Your task to perform on an android device: check google app version Image 0: 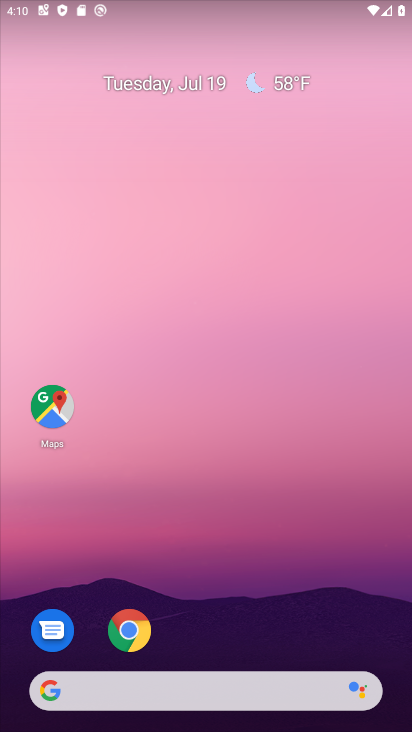
Step 0: drag from (199, 648) to (281, 199)
Your task to perform on an android device: check google app version Image 1: 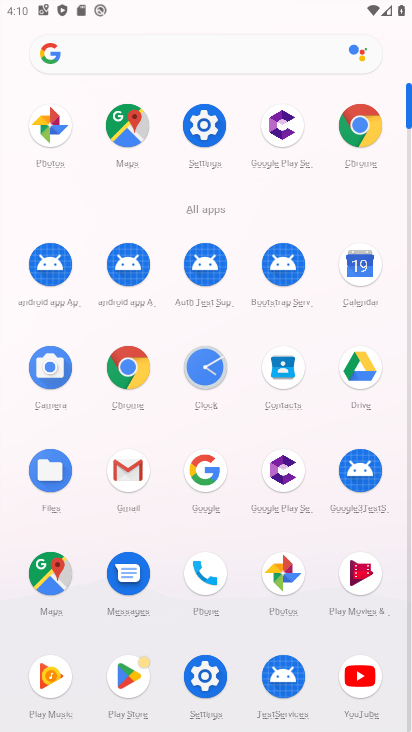
Step 1: click (204, 682)
Your task to perform on an android device: check google app version Image 2: 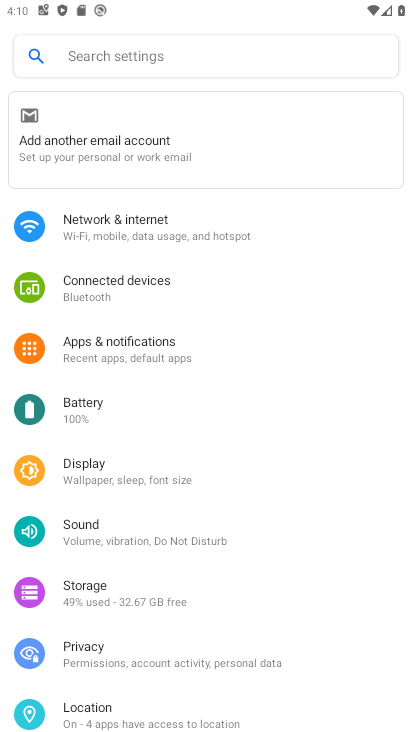
Step 2: click (170, 353)
Your task to perform on an android device: check google app version Image 3: 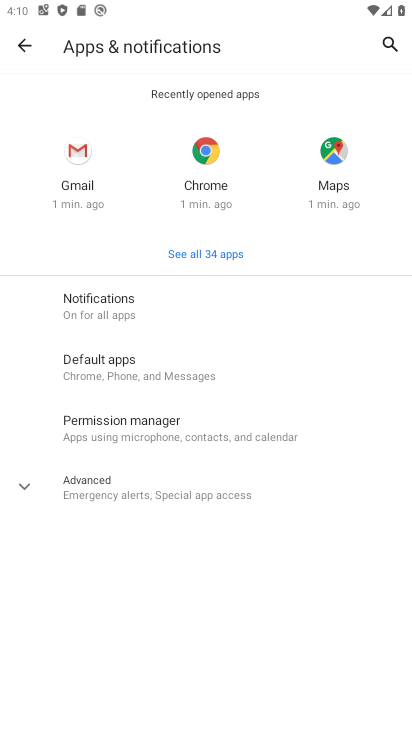
Step 3: click (227, 259)
Your task to perform on an android device: check google app version Image 4: 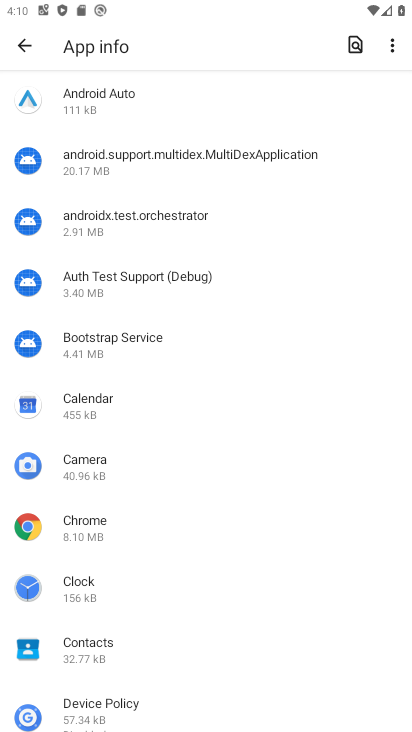
Step 4: drag from (117, 625) to (261, 201)
Your task to perform on an android device: check google app version Image 5: 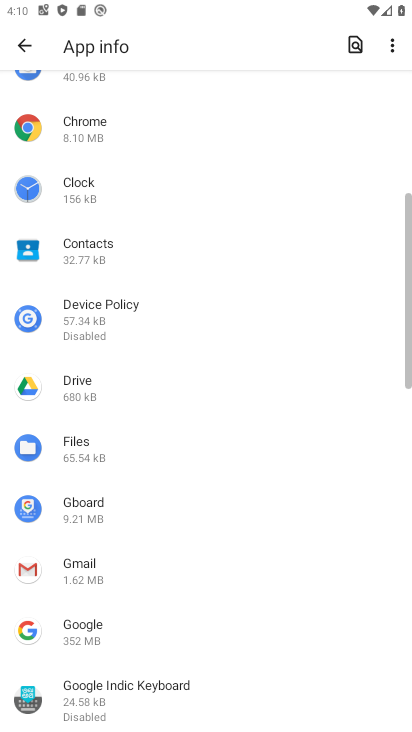
Step 5: click (126, 639)
Your task to perform on an android device: check google app version Image 6: 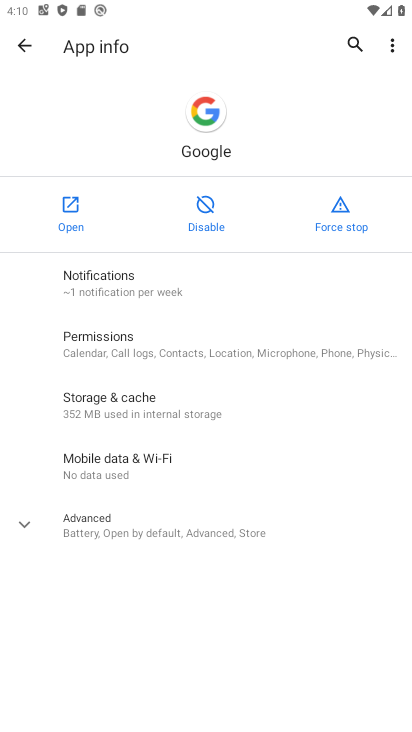
Step 6: click (161, 536)
Your task to perform on an android device: check google app version Image 7: 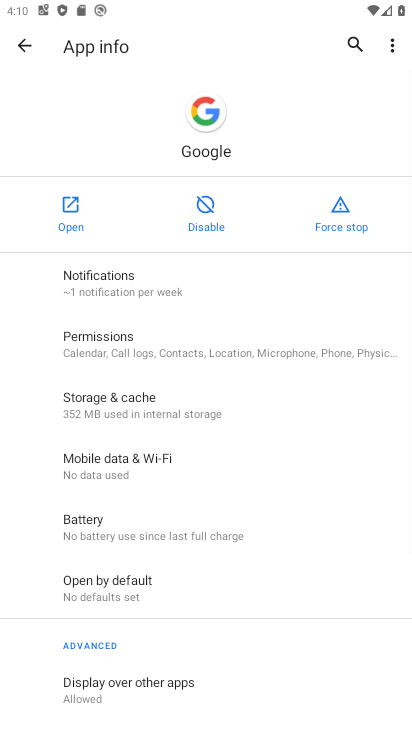
Step 7: task complete